Your task to perform on an android device: uninstall "Google Home" Image 0: 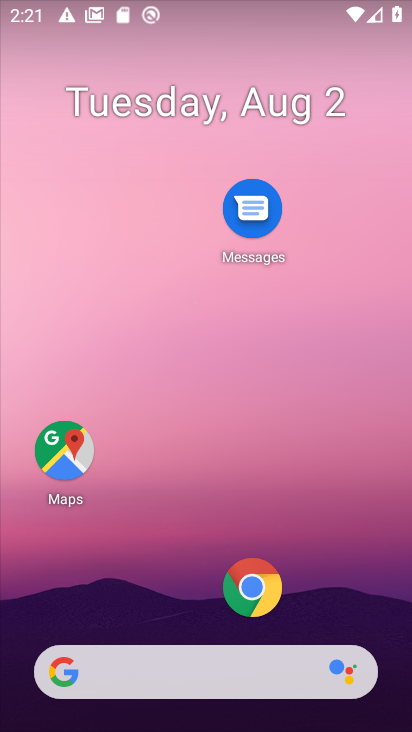
Step 0: drag from (186, 606) to (177, 196)
Your task to perform on an android device: uninstall "Google Home" Image 1: 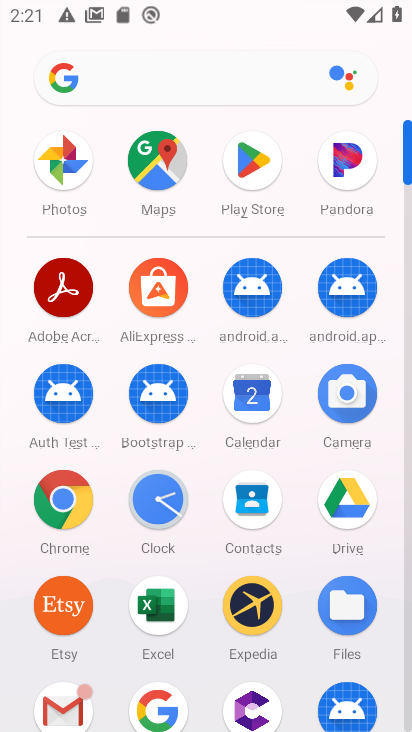
Step 1: click (237, 176)
Your task to perform on an android device: uninstall "Google Home" Image 2: 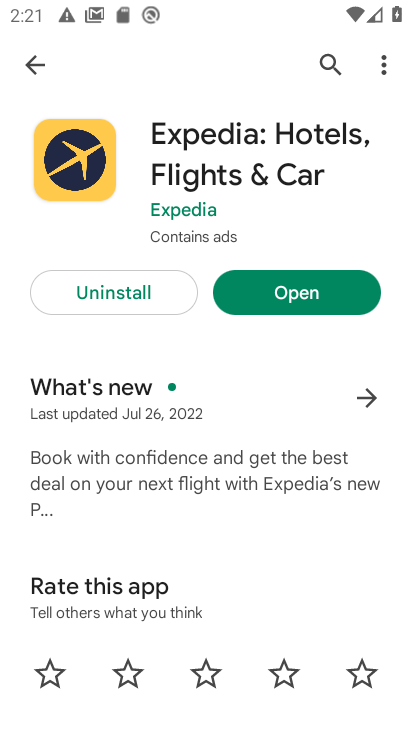
Step 2: click (316, 61)
Your task to perform on an android device: uninstall "Google Home" Image 3: 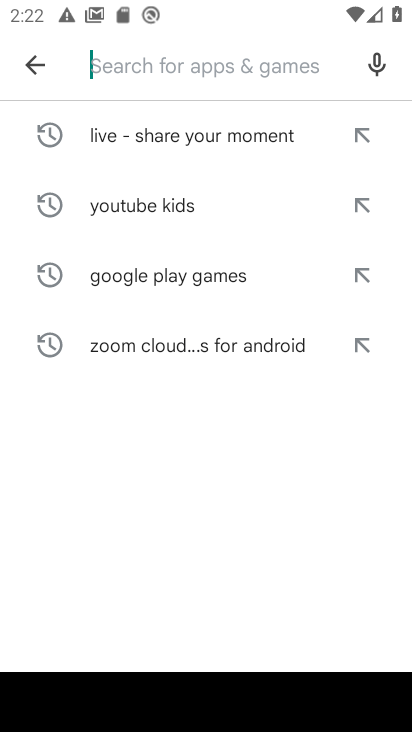
Step 3: type "Google Home"
Your task to perform on an android device: uninstall "Google Home" Image 4: 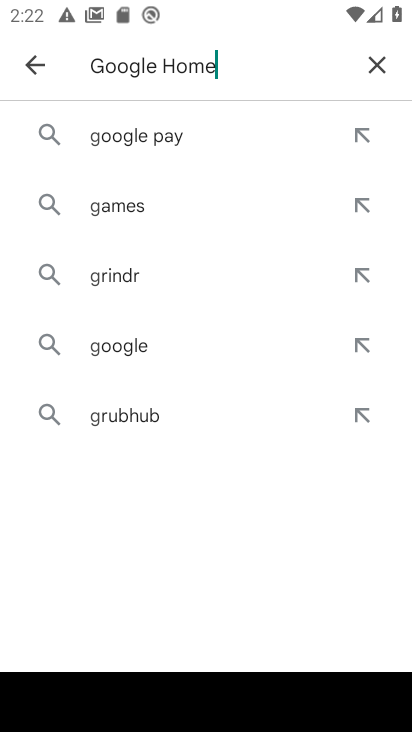
Step 4: type ""
Your task to perform on an android device: uninstall "Google Home" Image 5: 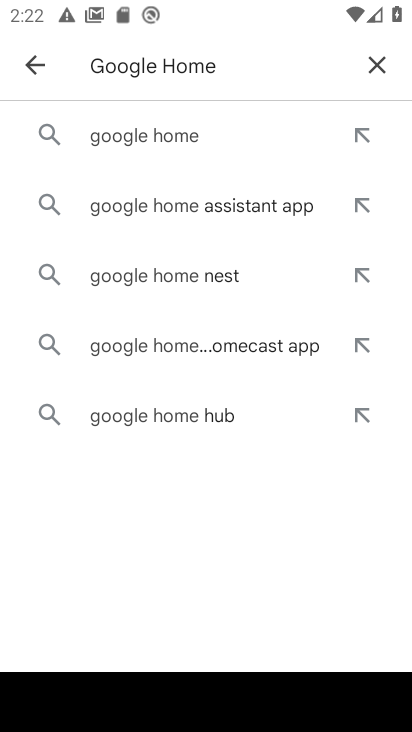
Step 5: click (230, 138)
Your task to perform on an android device: uninstall "Google Home" Image 6: 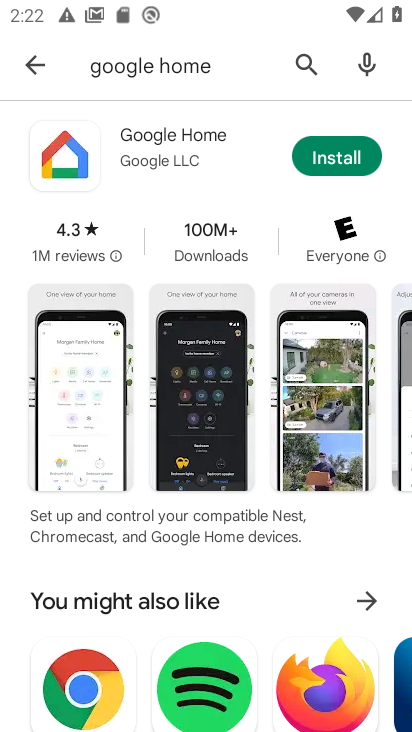
Step 6: click (182, 154)
Your task to perform on an android device: uninstall "Google Home" Image 7: 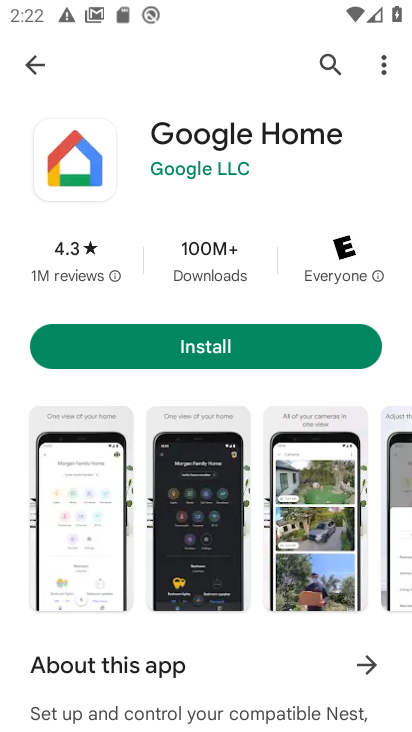
Step 7: task complete